Your task to perform on an android device: How do I get to the nearest JCPenney? Image 0: 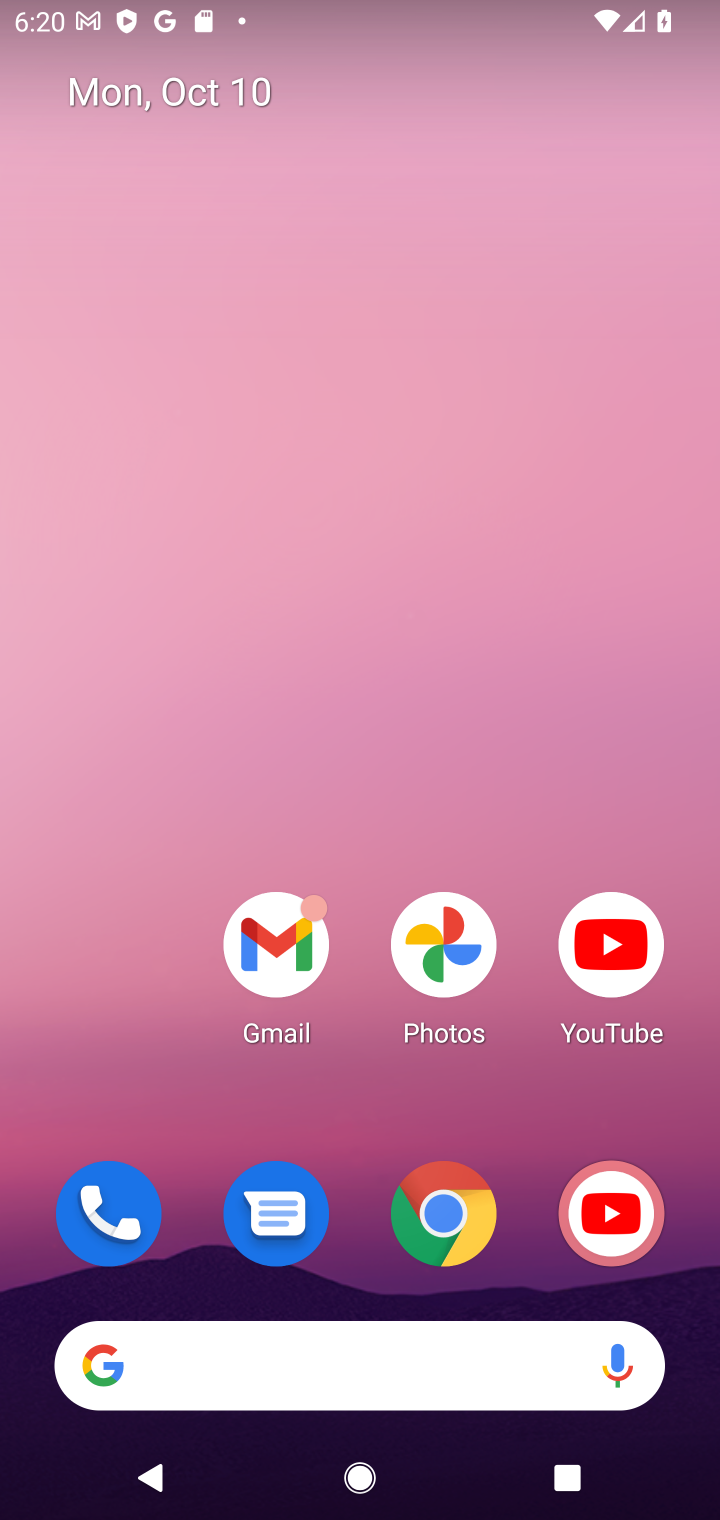
Step 0: click (308, 1392)
Your task to perform on an android device: How do I get to the nearest JCPenney? Image 1: 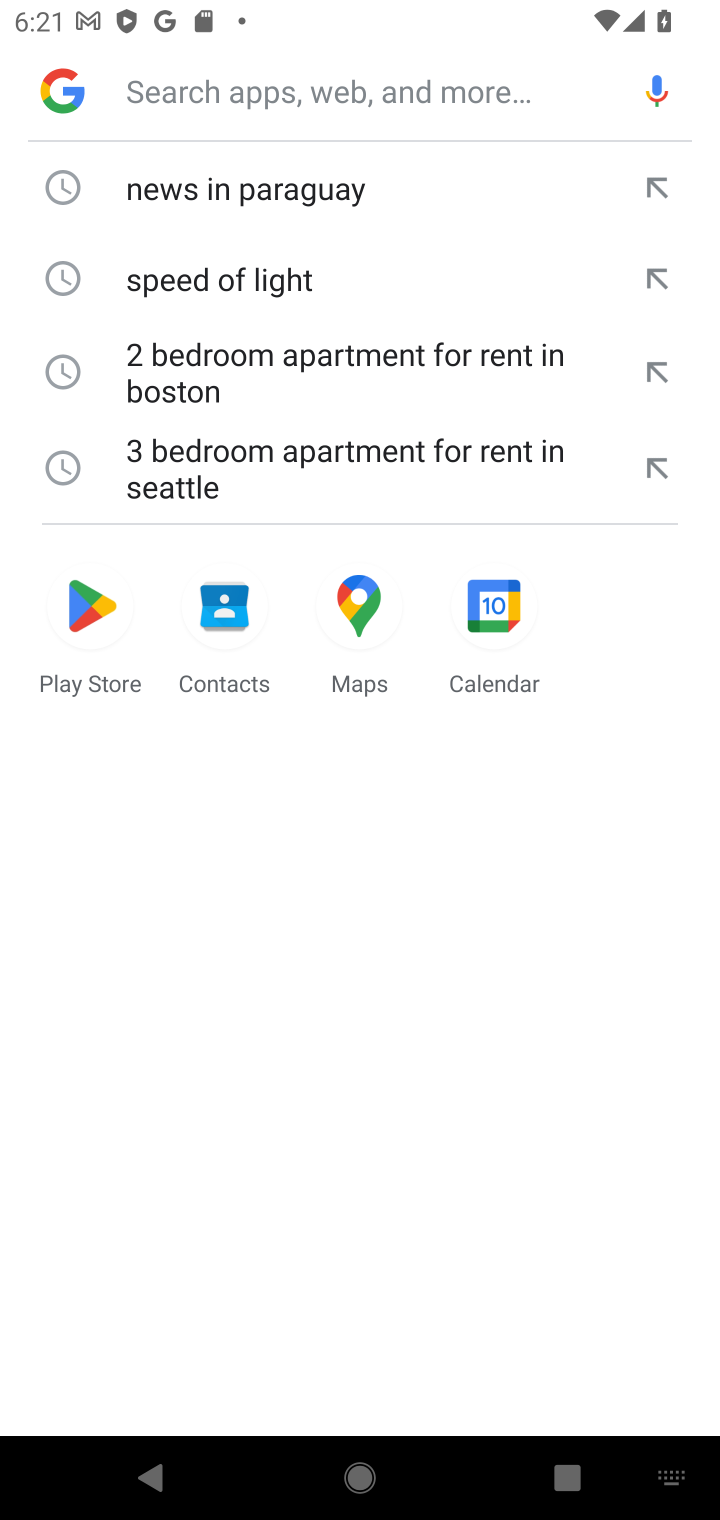
Step 1: type "nearest JCPenney"
Your task to perform on an android device: How do I get to the nearest JCPenney? Image 2: 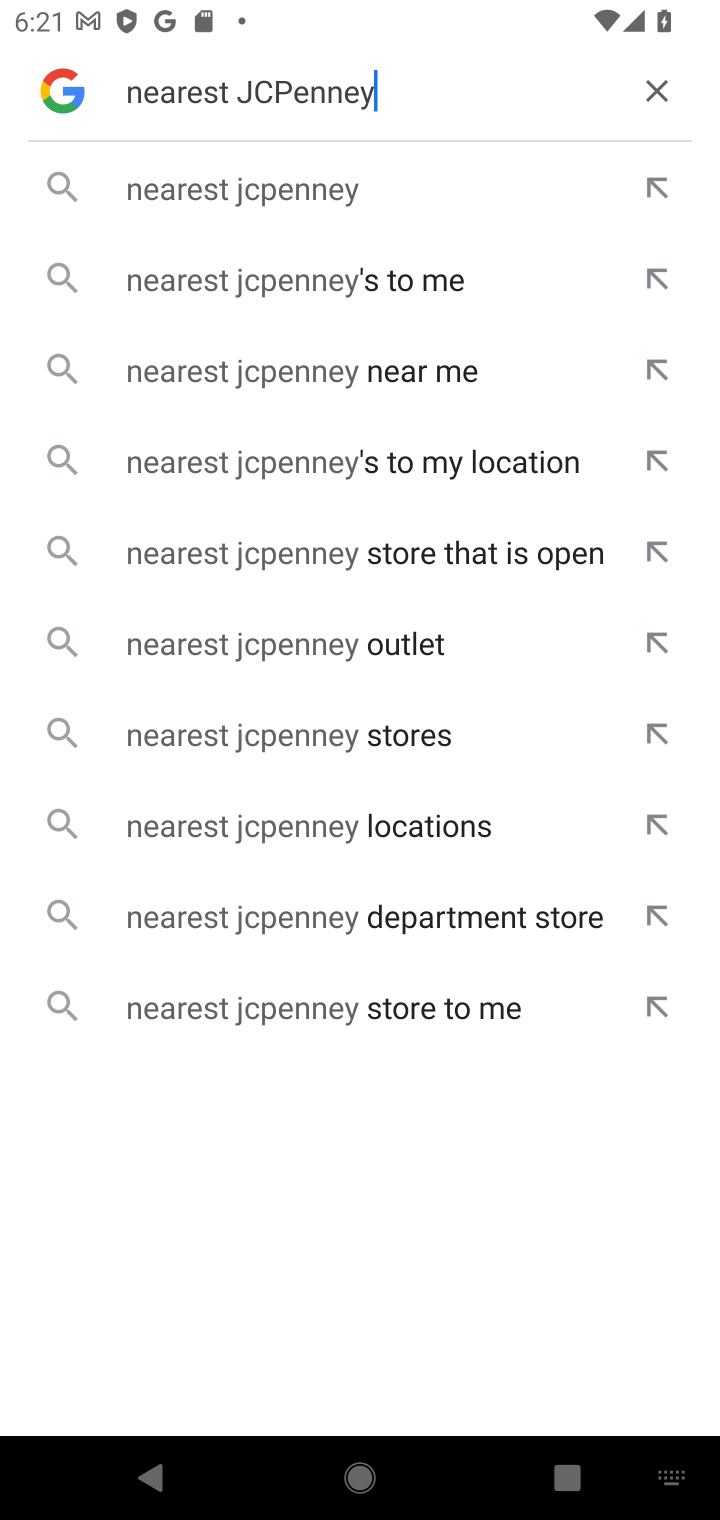
Step 2: click (244, 187)
Your task to perform on an android device: How do I get to the nearest JCPenney? Image 3: 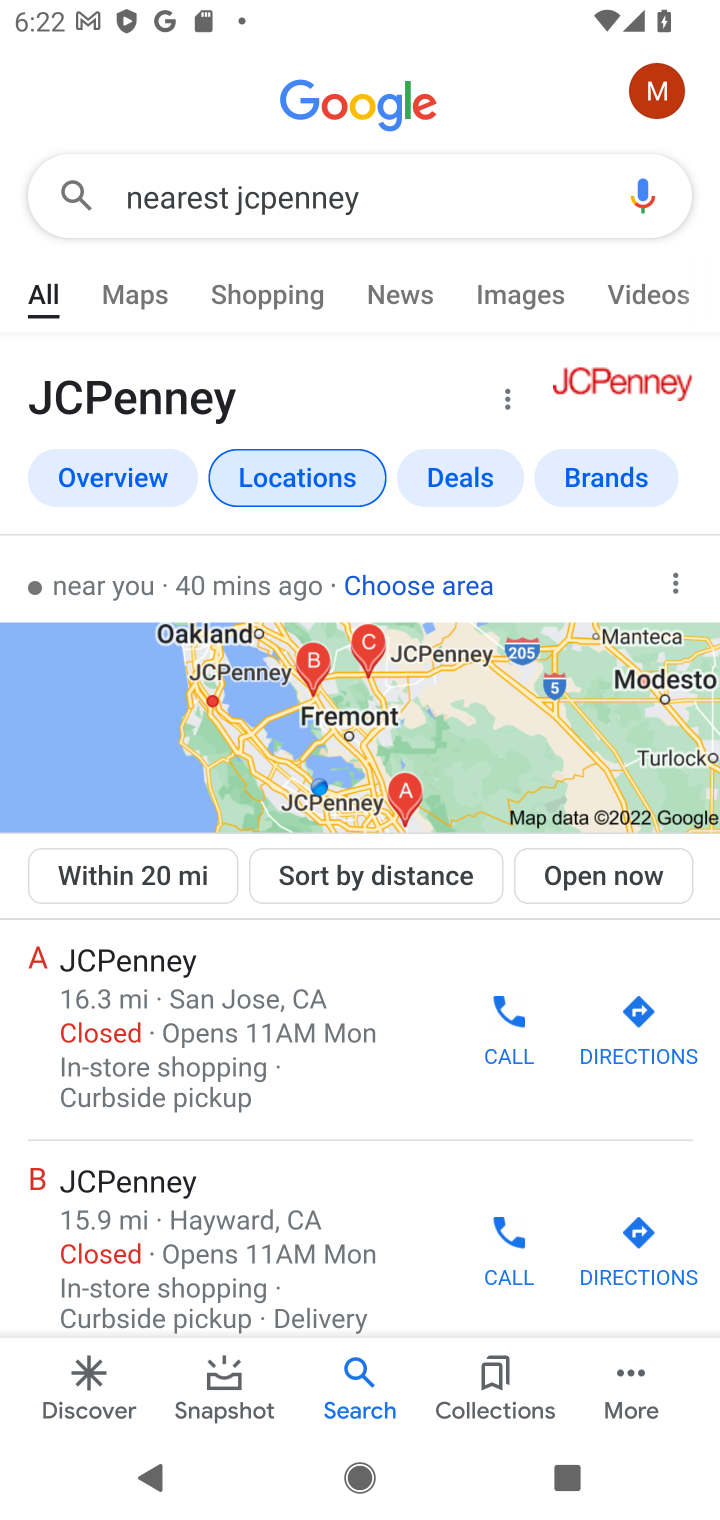
Step 3: task complete